Your task to perform on an android device: open app "HBO Max: Stream TV & Movies" (install if not already installed) and enter user name: "faring@outlook.com" and password: "appropriately" Image 0: 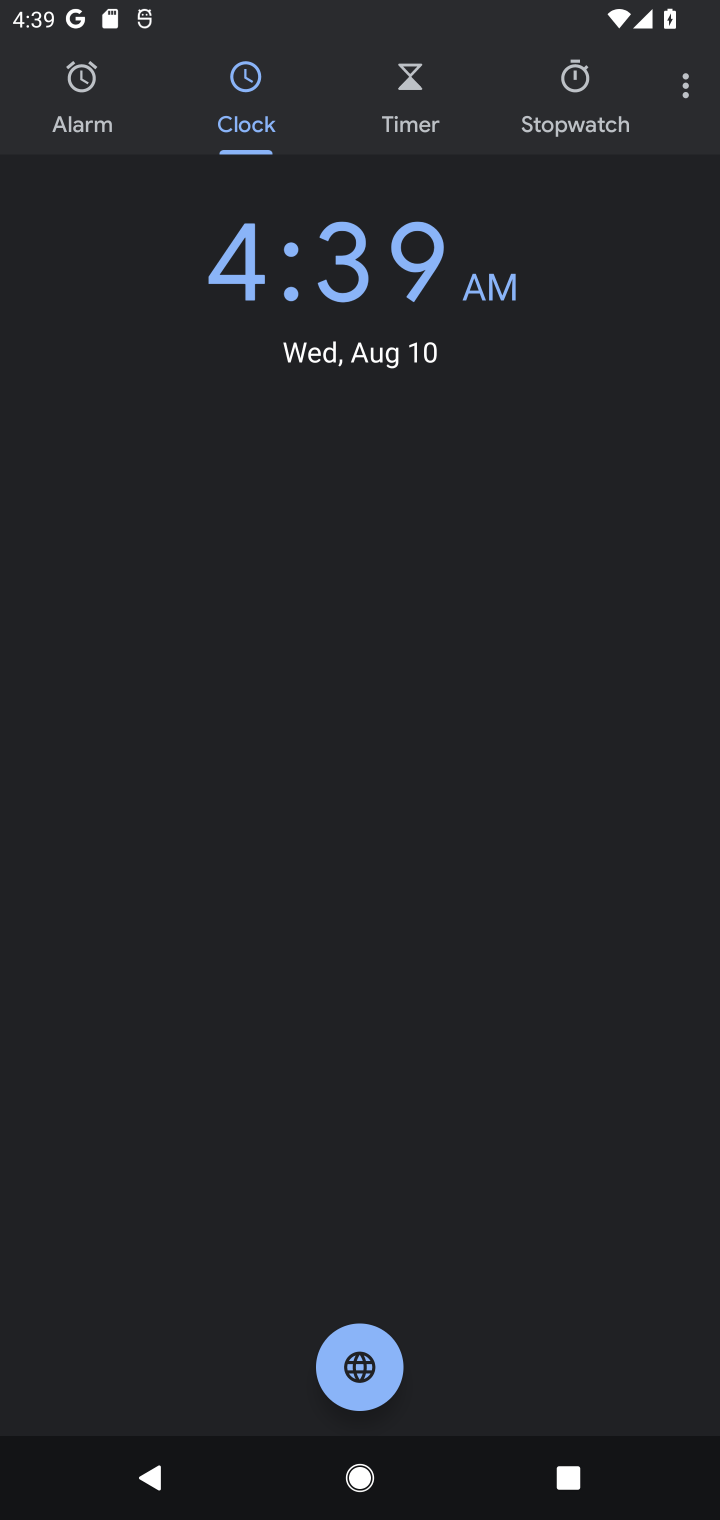
Step 0: press home button
Your task to perform on an android device: open app "HBO Max: Stream TV & Movies" (install if not already installed) and enter user name: "faring@outlook.com" and password: "appropriately" Image 1: 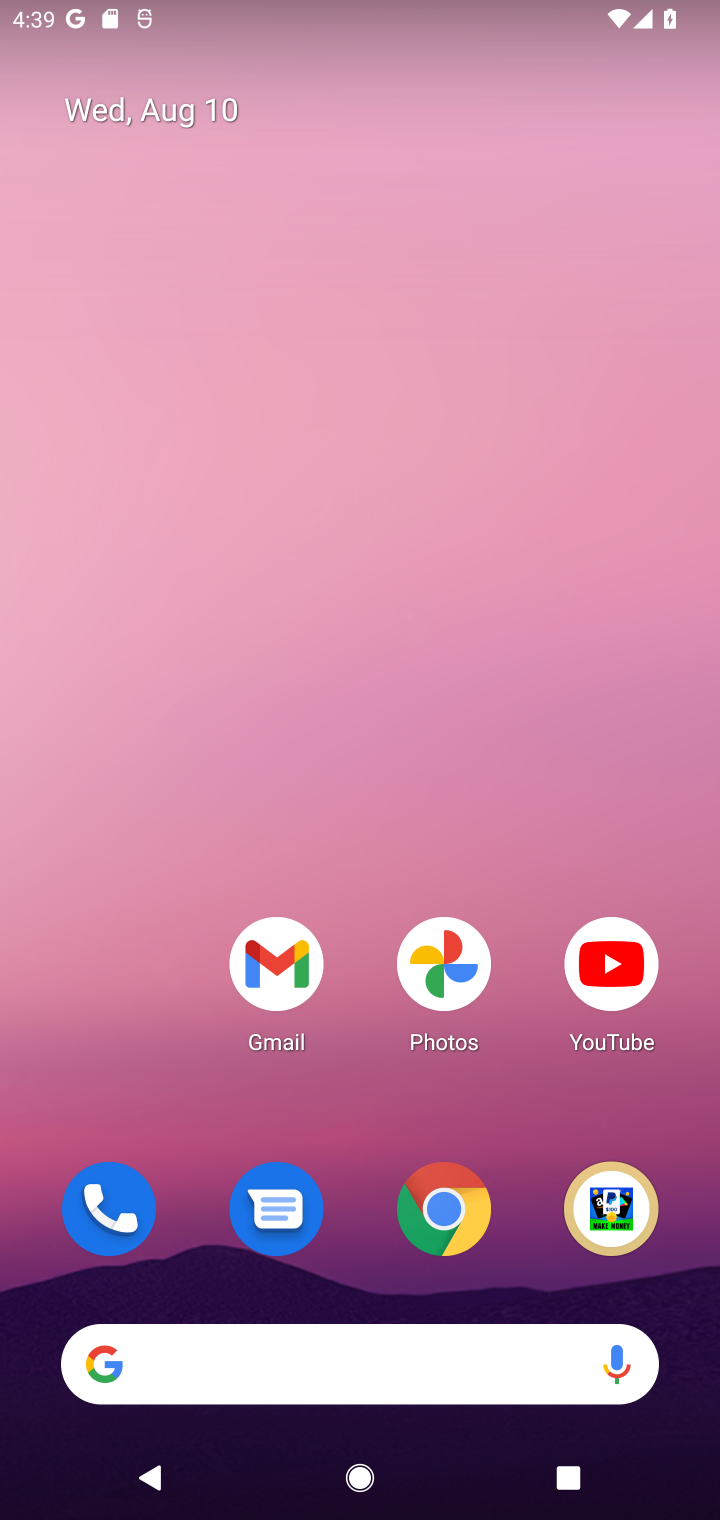
Step 1: drag from (365, 1260) to (309, 41)
Your task to perform on an android device: open app "HBO Max: Stream TV & Movies" (install if not already installed) and enter user name: "faring@outlook.com" and password: "appropriately" Image 2: 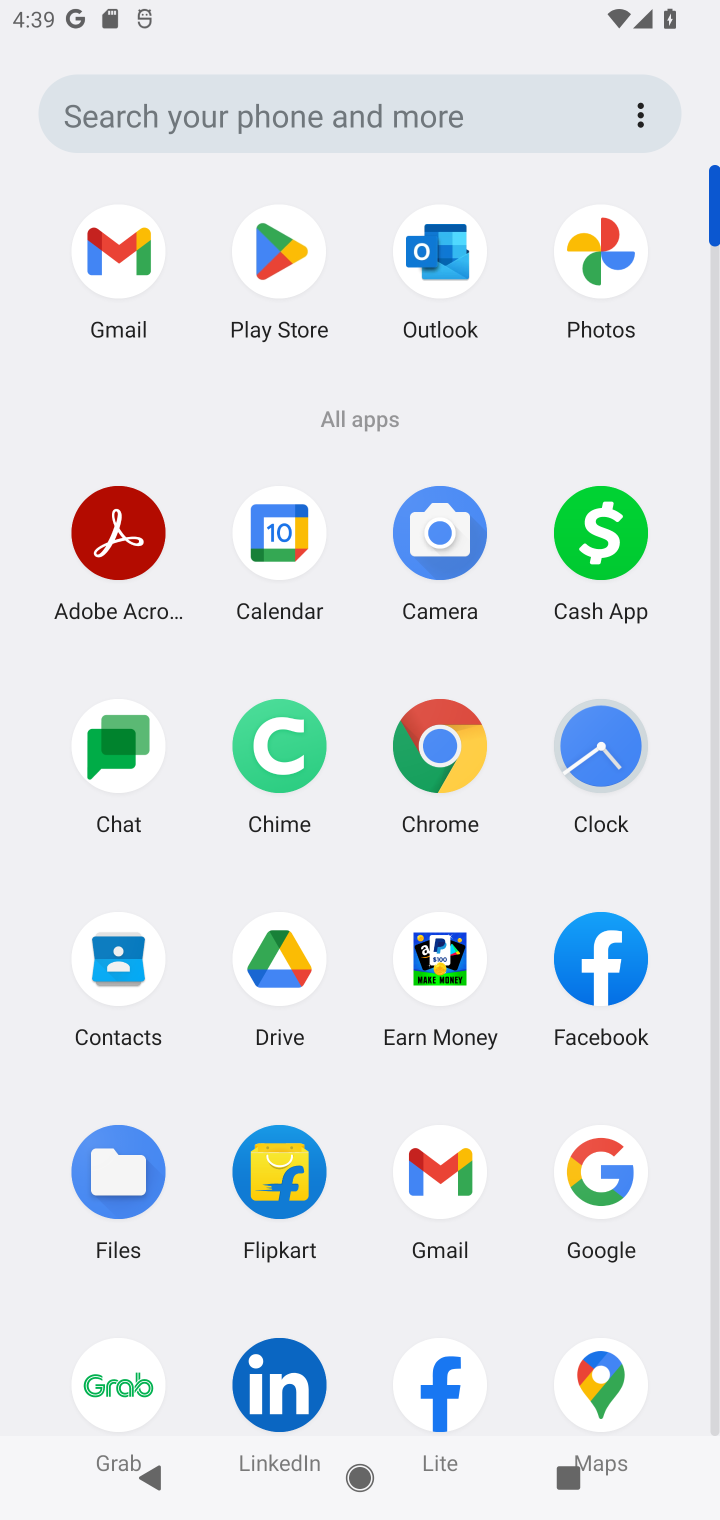
Step 2: click (347, 76)
Your task to perform on an android device: open app "HBO Max: Stream TV & Movies" (install if not already installed) and enter user name: "faring@outlook.com" and password: "appropriately" Image 3: 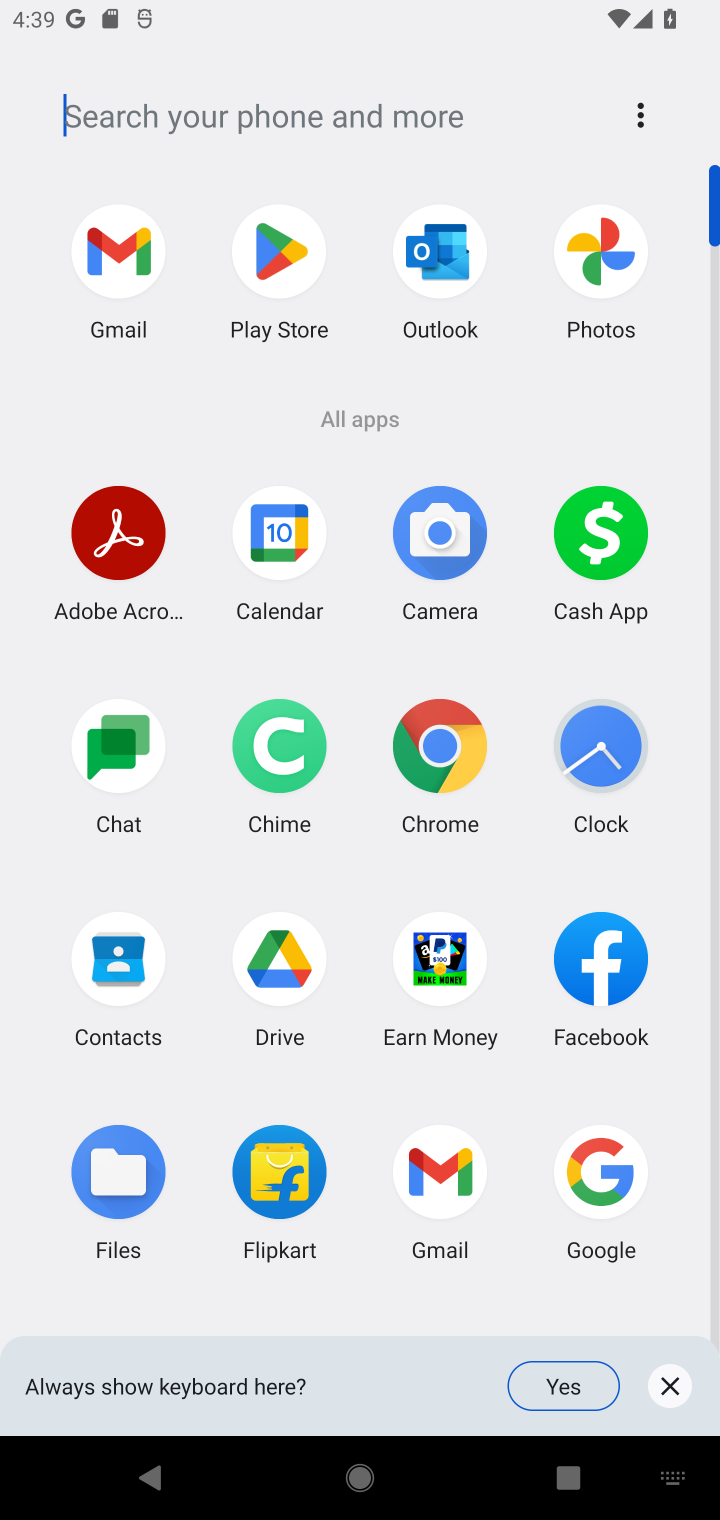
Step 3: type "hbo"
Your task to perform on an android device: open app "HBO Max: Stream TV & Movies" (install if not already installed) and enter user name: "faring@outlook.com" and password: "appropriately" Image 4: 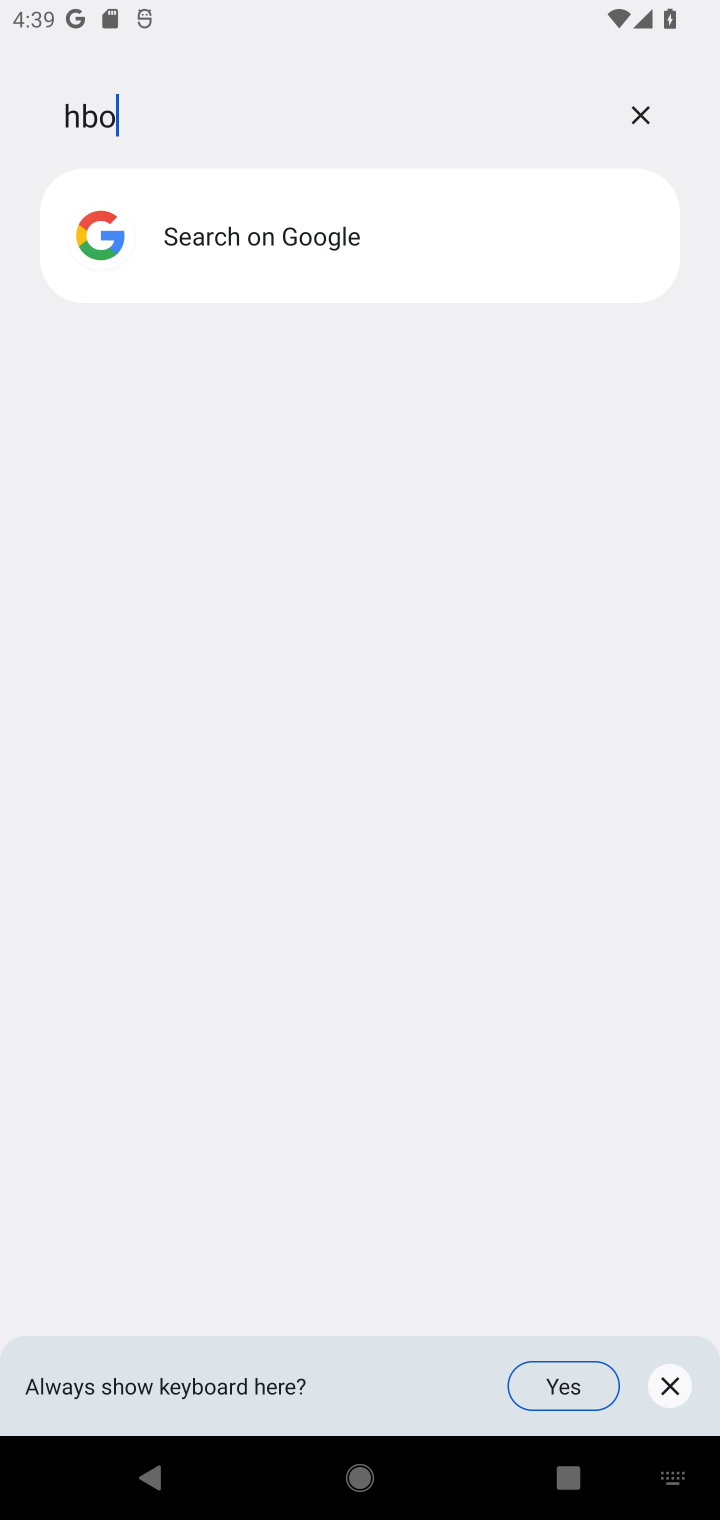
Step 4: press home button
Your task to perform on an android device: open app "HBO Max: Stream TV & Movies" (install if not already installed) and enter user name: "faring@outlook.com" and password: "appropriately" Image 5: 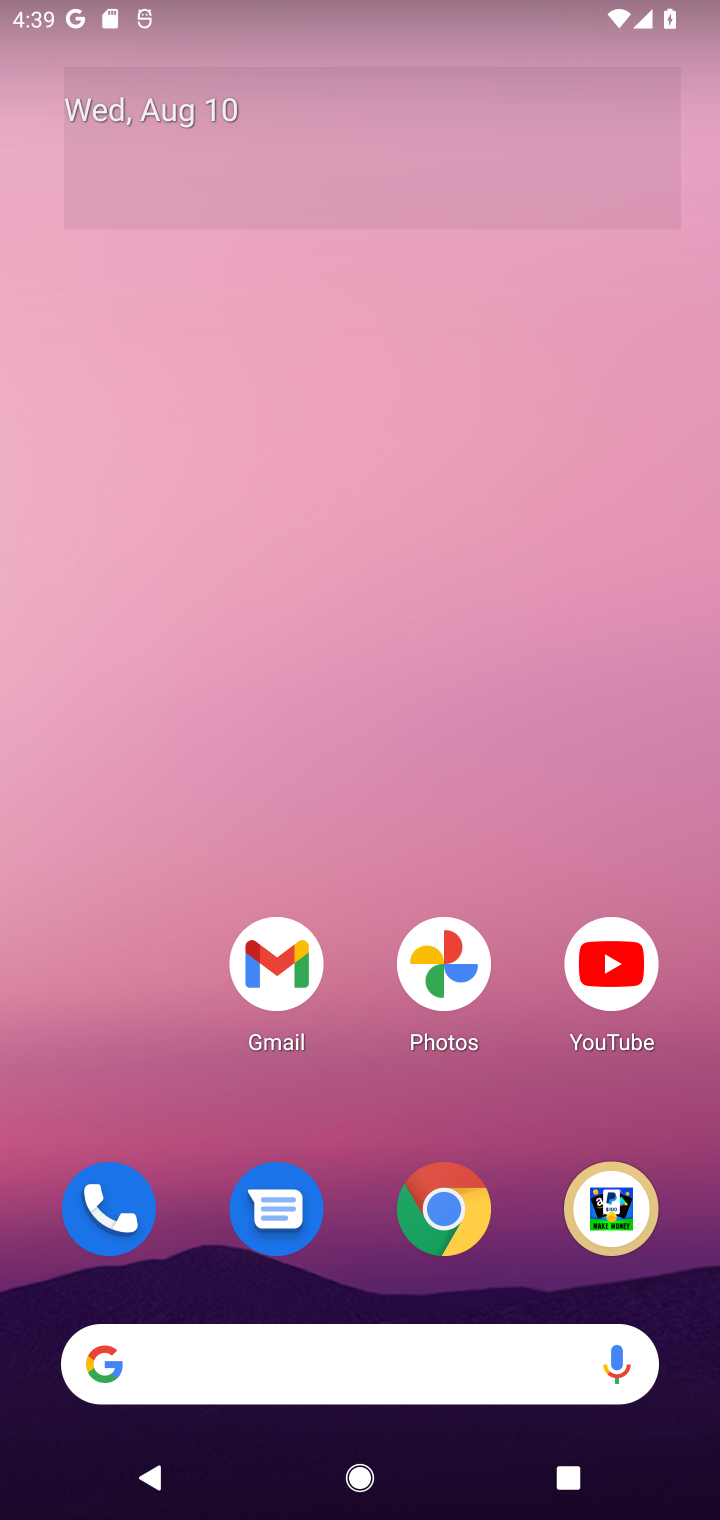
Step 5: drag from (345, 1321) to (358, 218)
Your task to perform on an android device: open app "HBO Max: Stream TV & Movies" (install if not already installed) and enter user name: "faring@outlook.com" and password: "appropriately" Image 6: 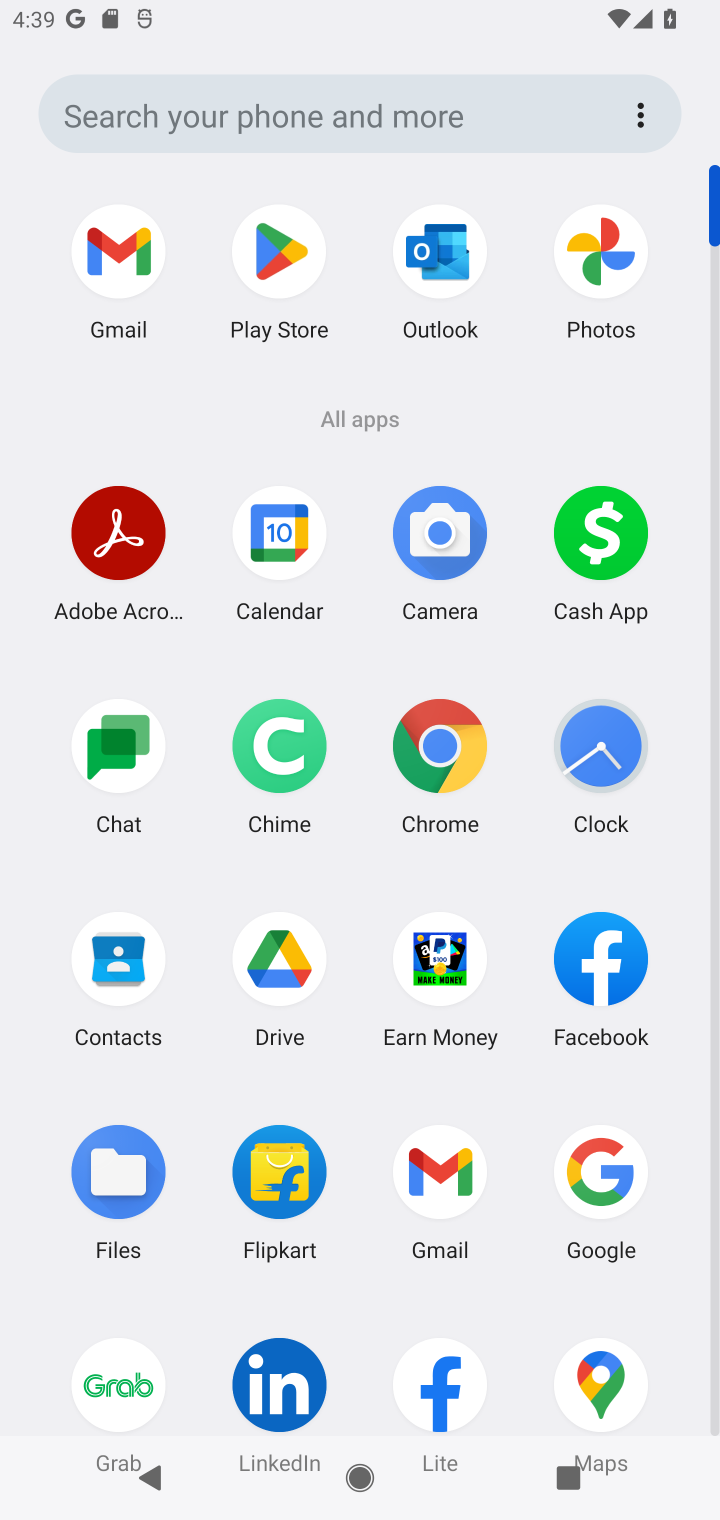
Step 6: click (275, 311)
Your task to perform on an android device: open app "HBO Max: Stream TV & Movies" (install if not already installed) and enter user name: "faring@outlook.com" and password: "appropriately" Image 7: 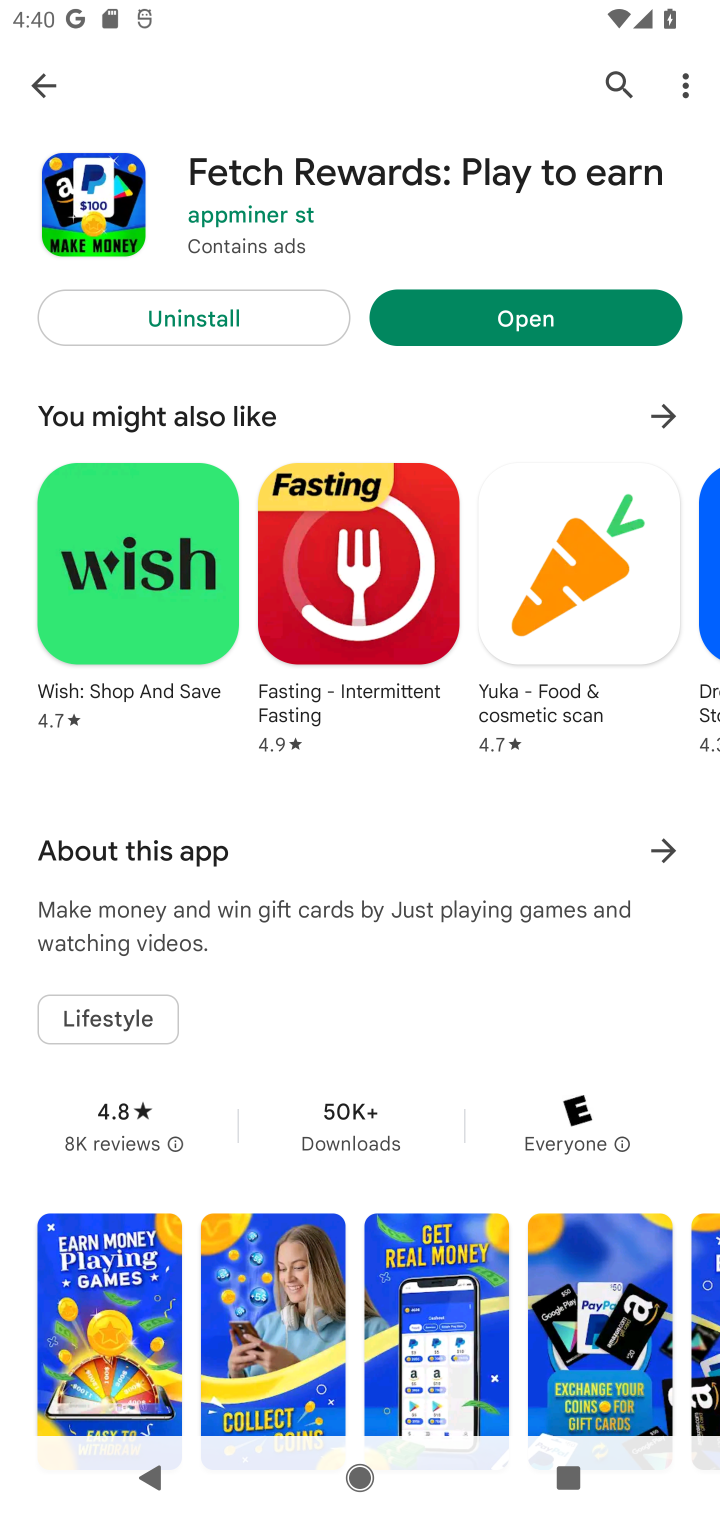
Step 7: click (636, 107)
Your task to perform on an android device: open app "HBO Max: Stream TV & Movies" (install if not already installed) and enter user name: "faring@outlook.com" and password: "appropriately" Image 8: 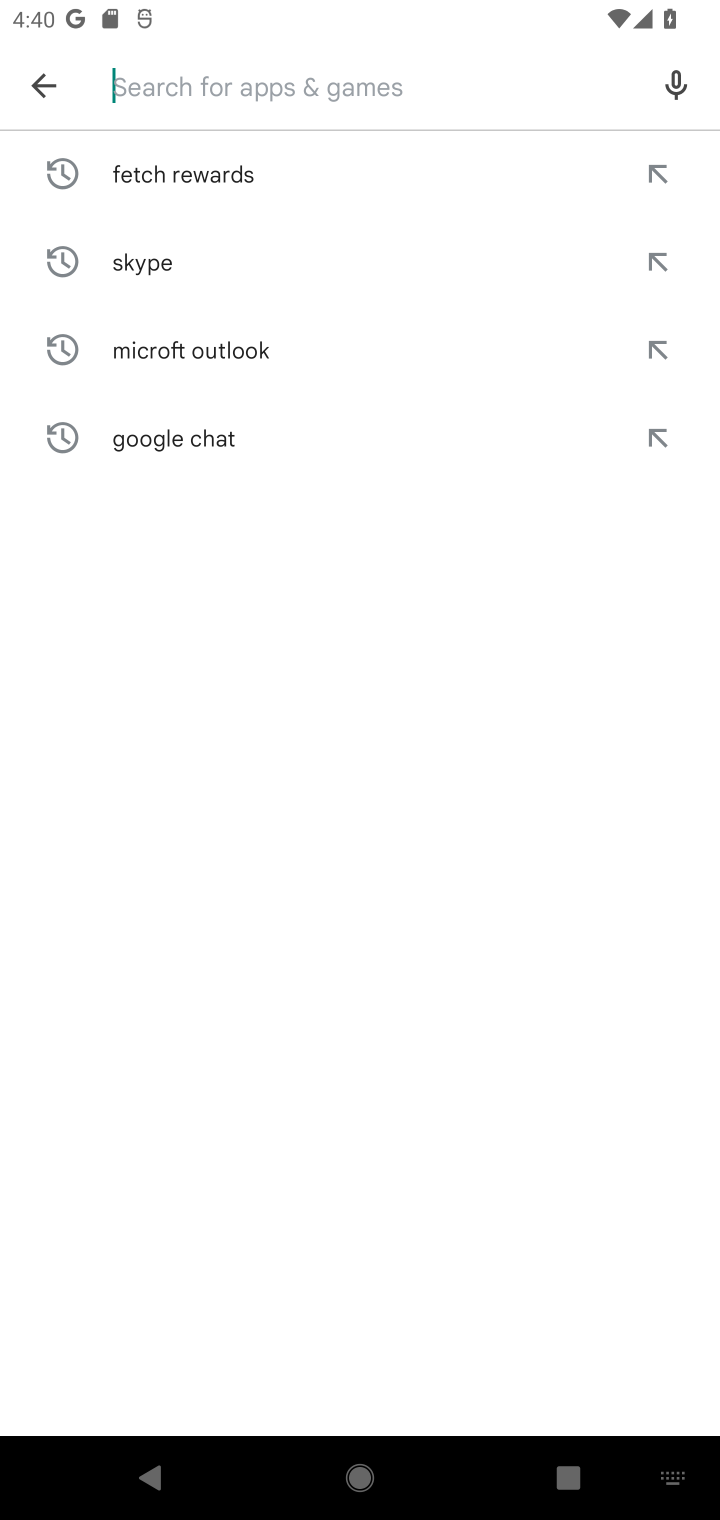
Step 8: type "hbo"
Your task to perform on an android device: open app "HBO Max: Stream TV & Movies" (install if not already installed) and enter user name: "faring@outlook.com" and password: "appropriately" Image 9: 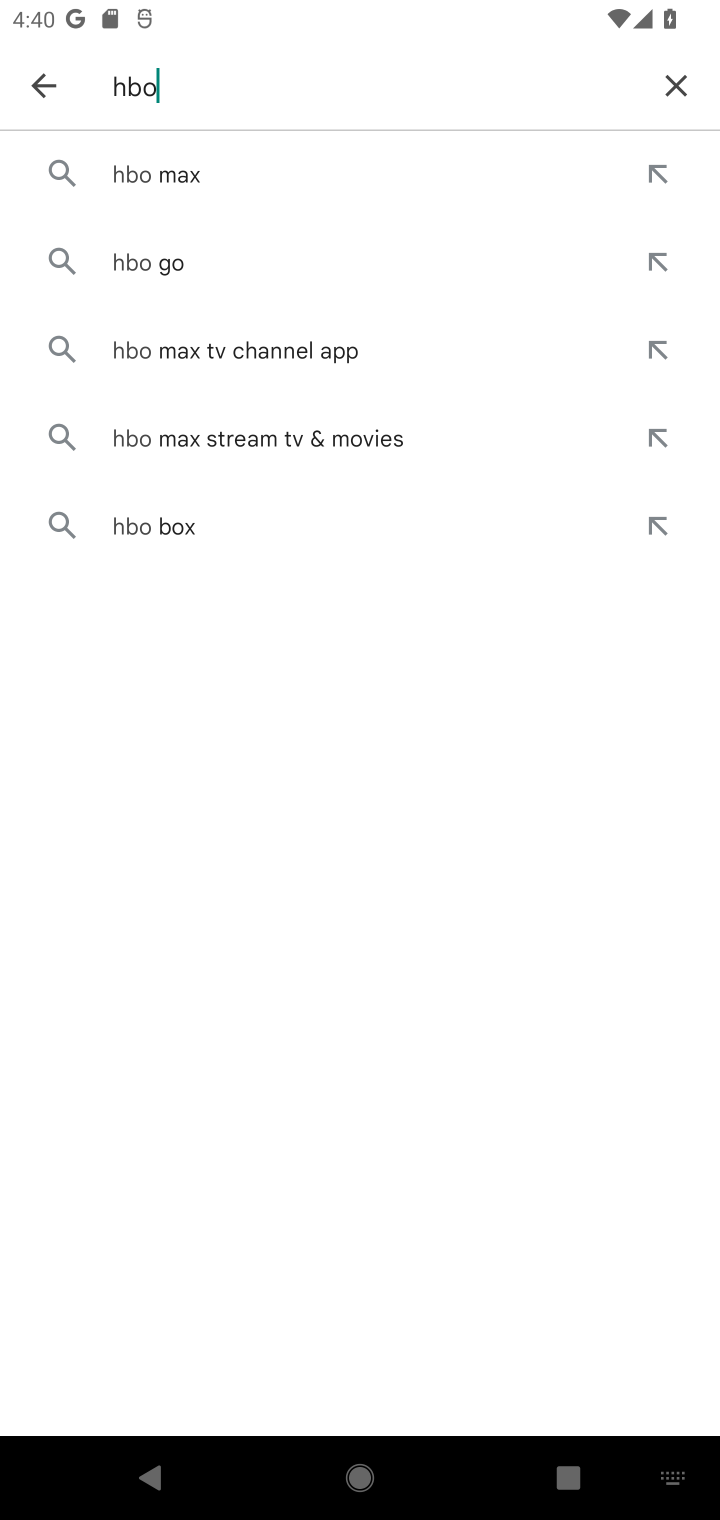
Step 9: click (242, 182)
Your task to perform on an android device: open app "HBO Max: Stream TV & Movies" (install if not already installed) and enter user name: "faring@outlook.com" and password: "appropriately" Image 10: 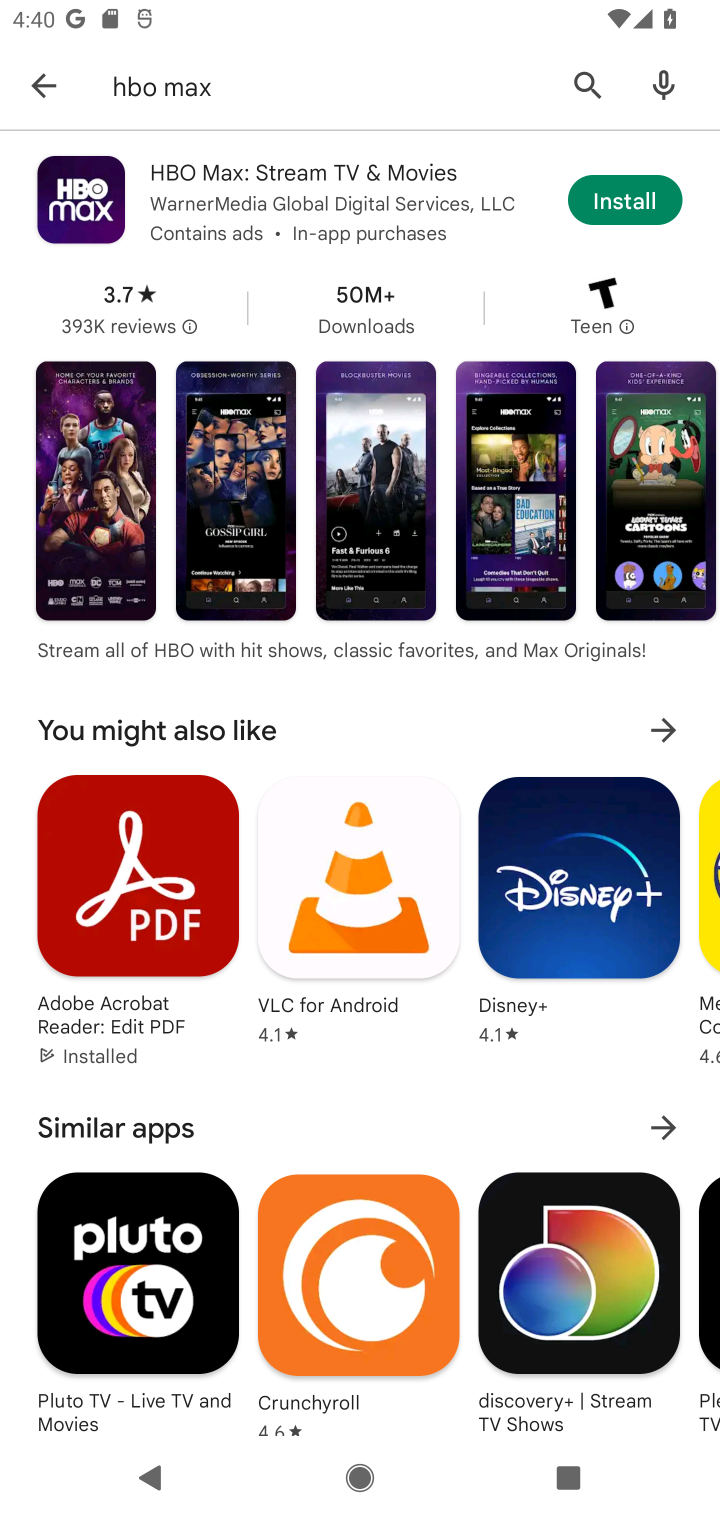
Step 10: click (597, 196)
Your task to perform on an android device: open app "HBO Max: Stream TV & Movies" (install if not already installed) and enter user name: "faring@outlook.com" and password: "appropriately" Image 11: 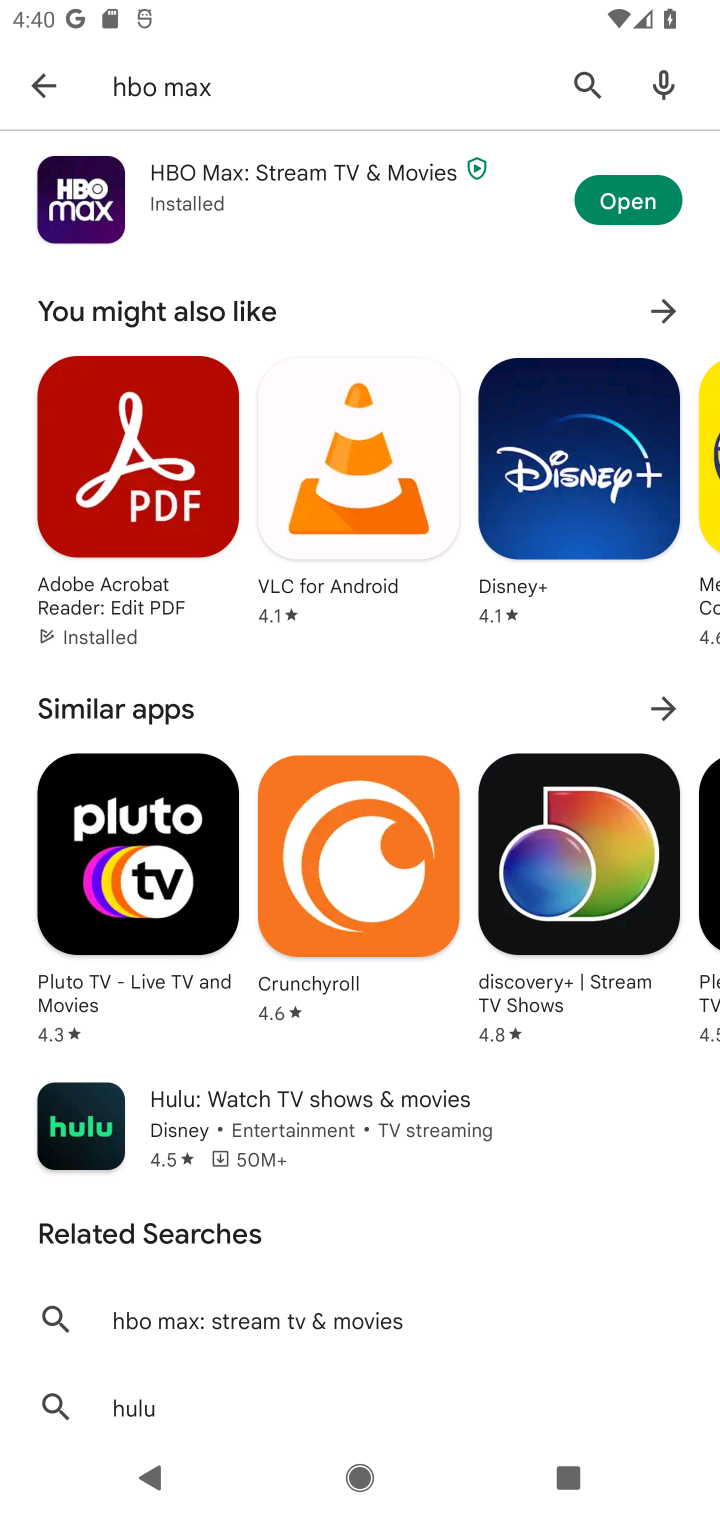
Step 11: click (643, 177)
Your task to perform on an android device: open app "HBO Max: Stream TV & Movies" (install if not already installed) and enter user name: "faring@outlook.com" and password: "appropriately" Image 12: 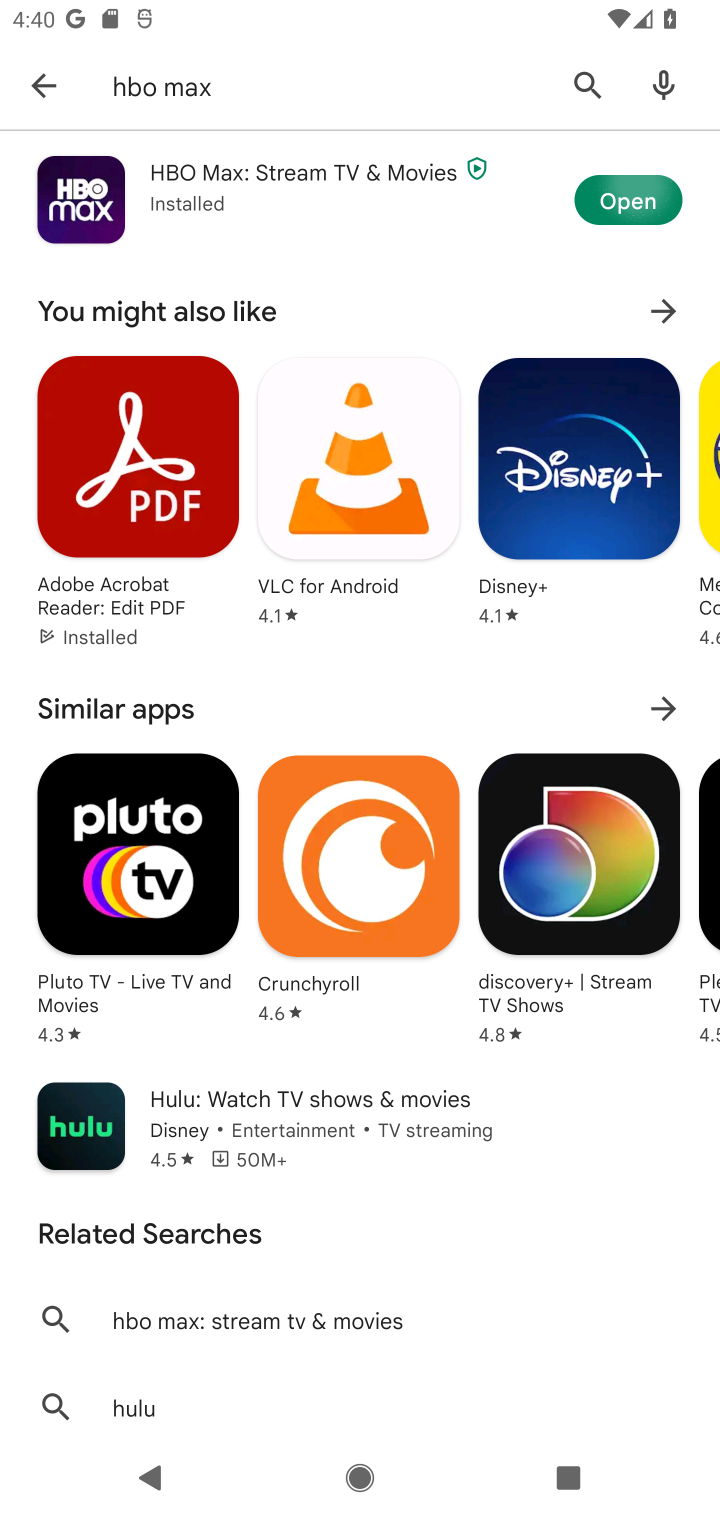
Step 12: task complete